Your task to perform on an android device: turn off data saver in the chrome app Image 0: 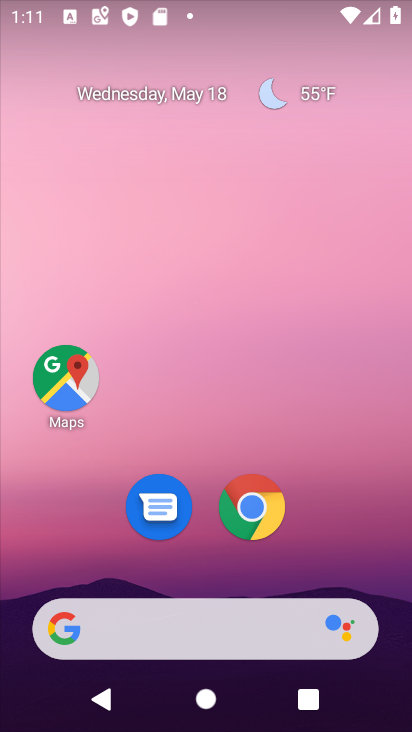
Step 0: click (250, 504)
Your task to perform on an android device: turn off data saver in the chrome app Image 1: 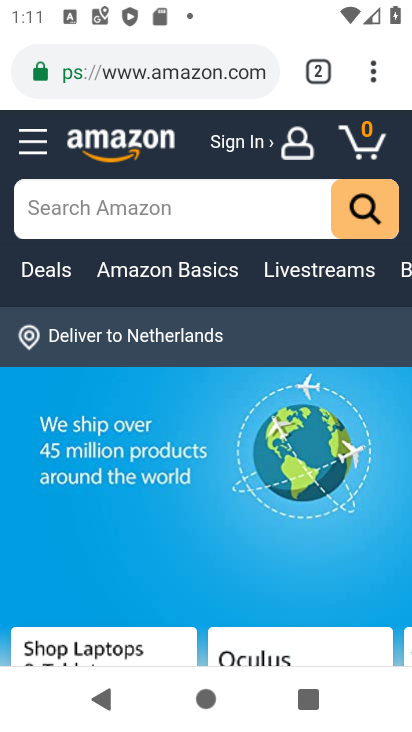
Step 1: click (370, 63)
Your task to perform on an android device: turn off data saver in the chrome app Image 2: 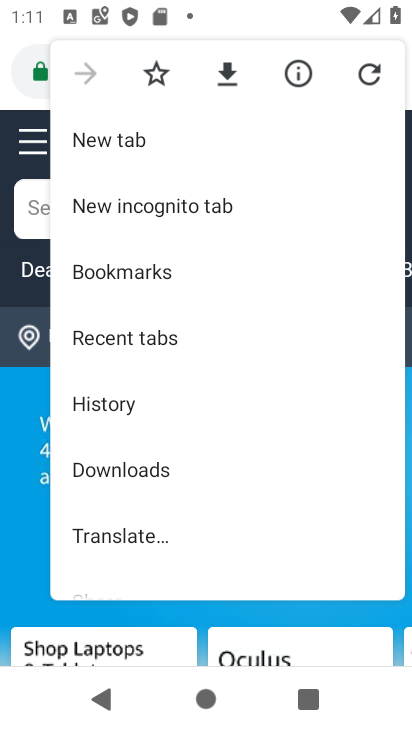
Step 2: drag from (218, 522) to (217, 273)
Your task to perform on an android device: turn off data saver in the chrome app Image 3: 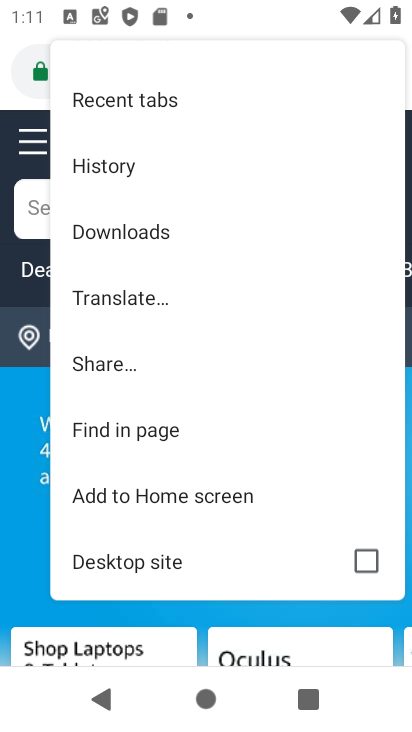
Step 3: drag from (241, 571) to (226, 244)
Your task to perform on an android device: turn off data saver in the chrome app Image 4: 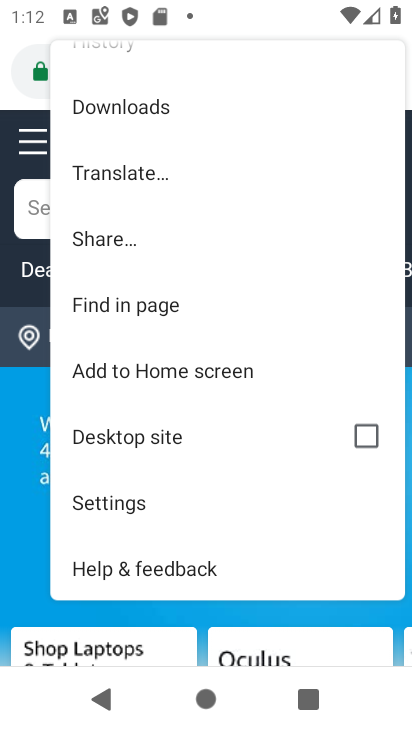
Step 4: click (132, 510)
Your task to perform on an android device: turn off data saver in the chrome app Image 5: 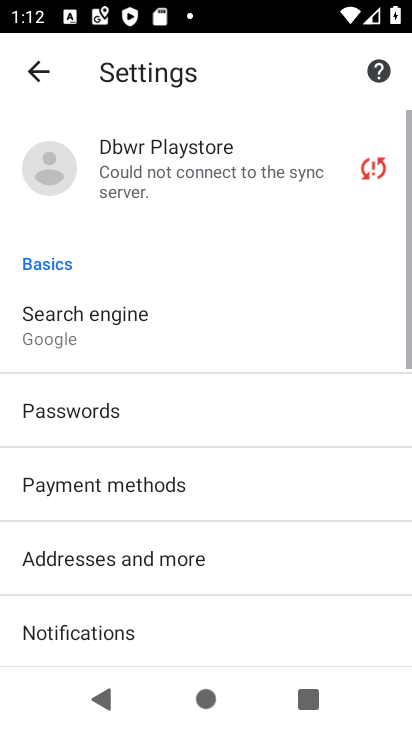
Step 5: drag from (231, 617) to (199, 187)
Your task to perform on an android device: turn off data saver in the chrome app Image 6: 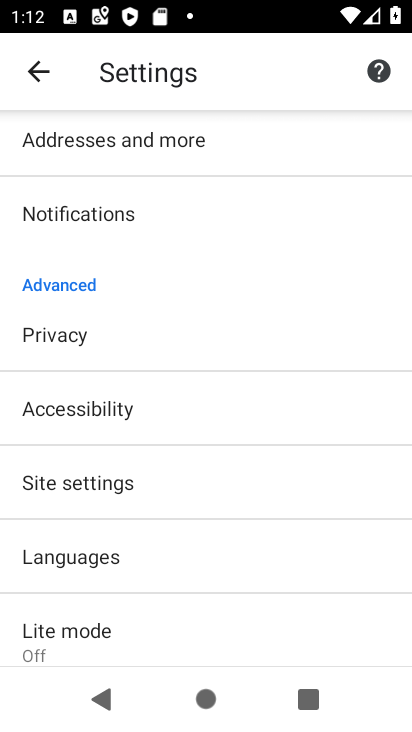
Step 6: click (59, 634)
Your task to perform on an android device: turn off data saver in the chrome app Image 7: 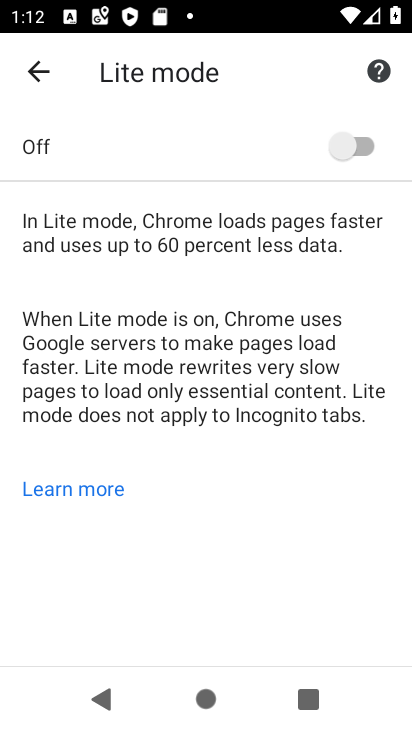
Step 7: task complete